Your task to perform on an android device: Go to Amazon Image 0: 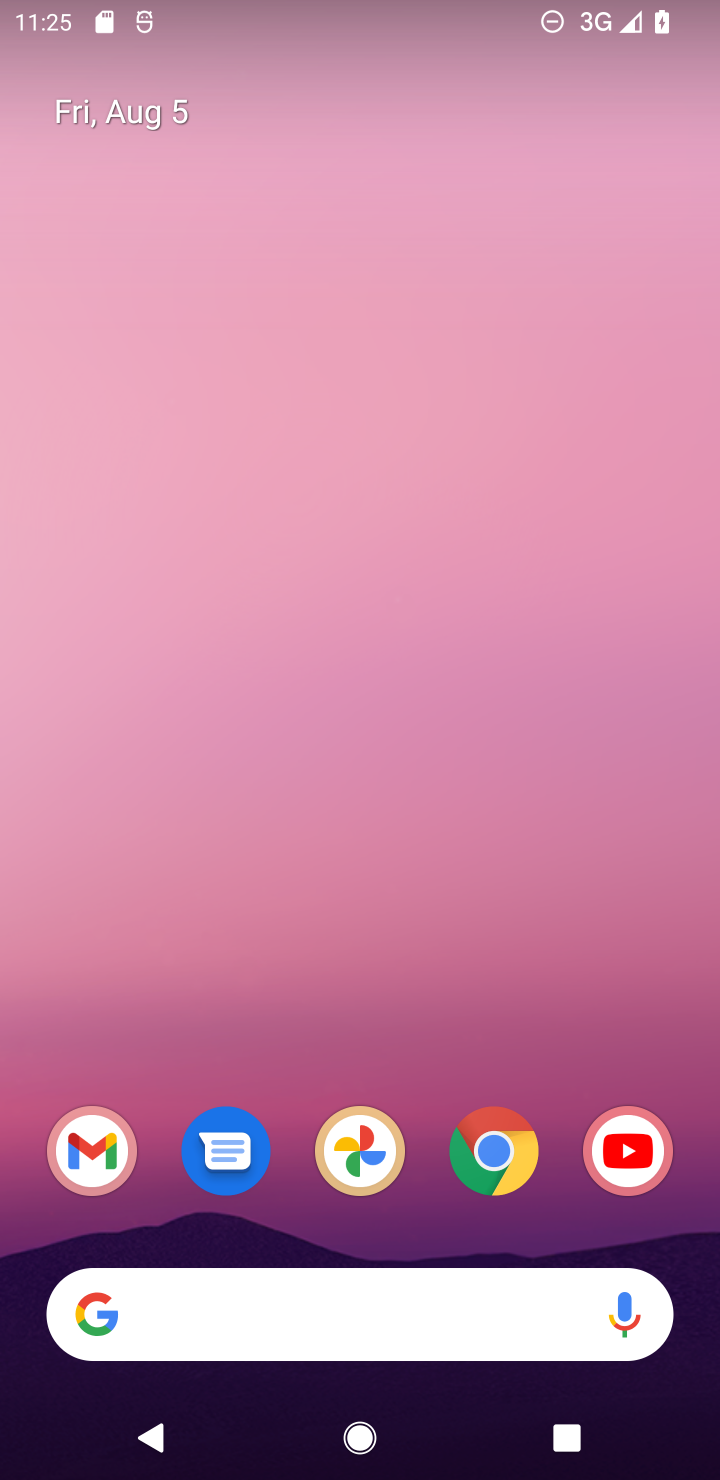
Step 0: click (478, 1184)
Your task to perform on an android device: Go to Amazon Image 1: 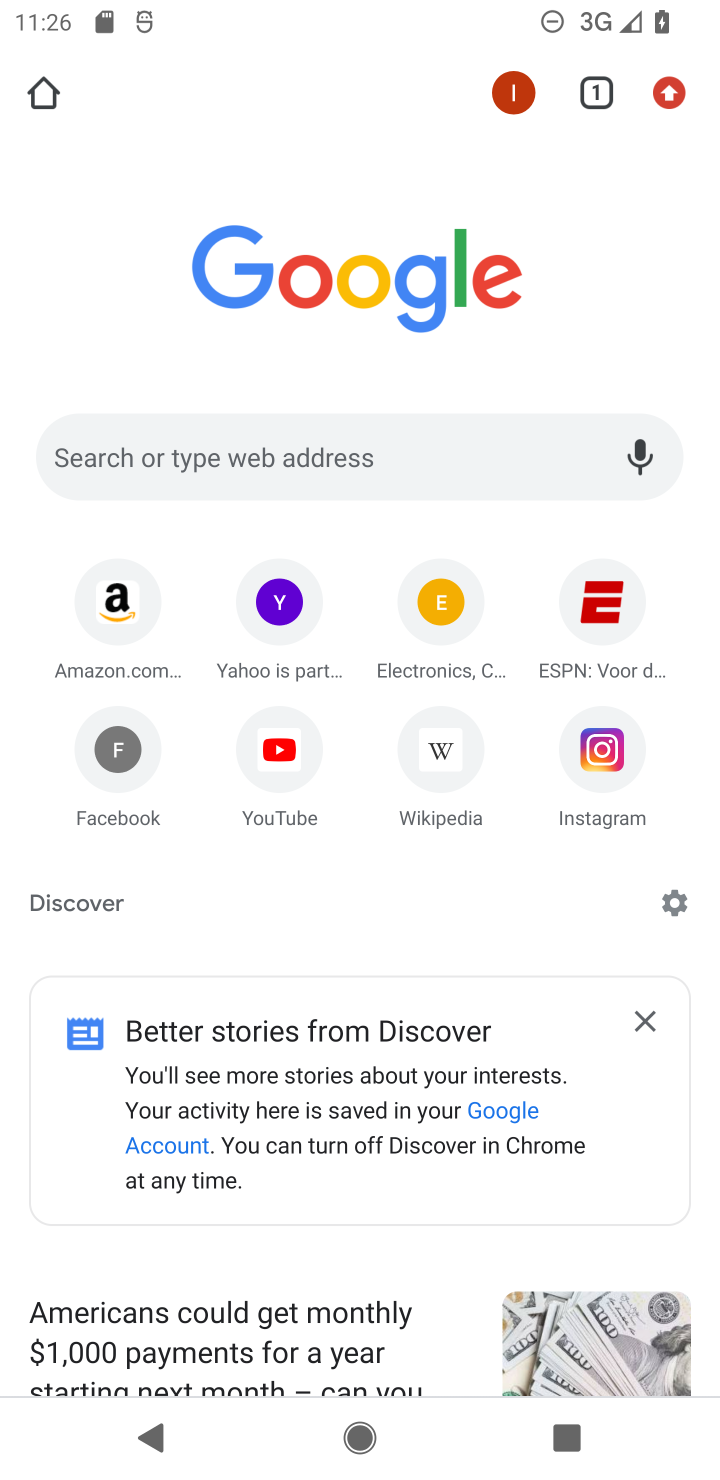
Step 1: click (92, 623)
Your task to perform on an android device: Go to Amazon Image 2: 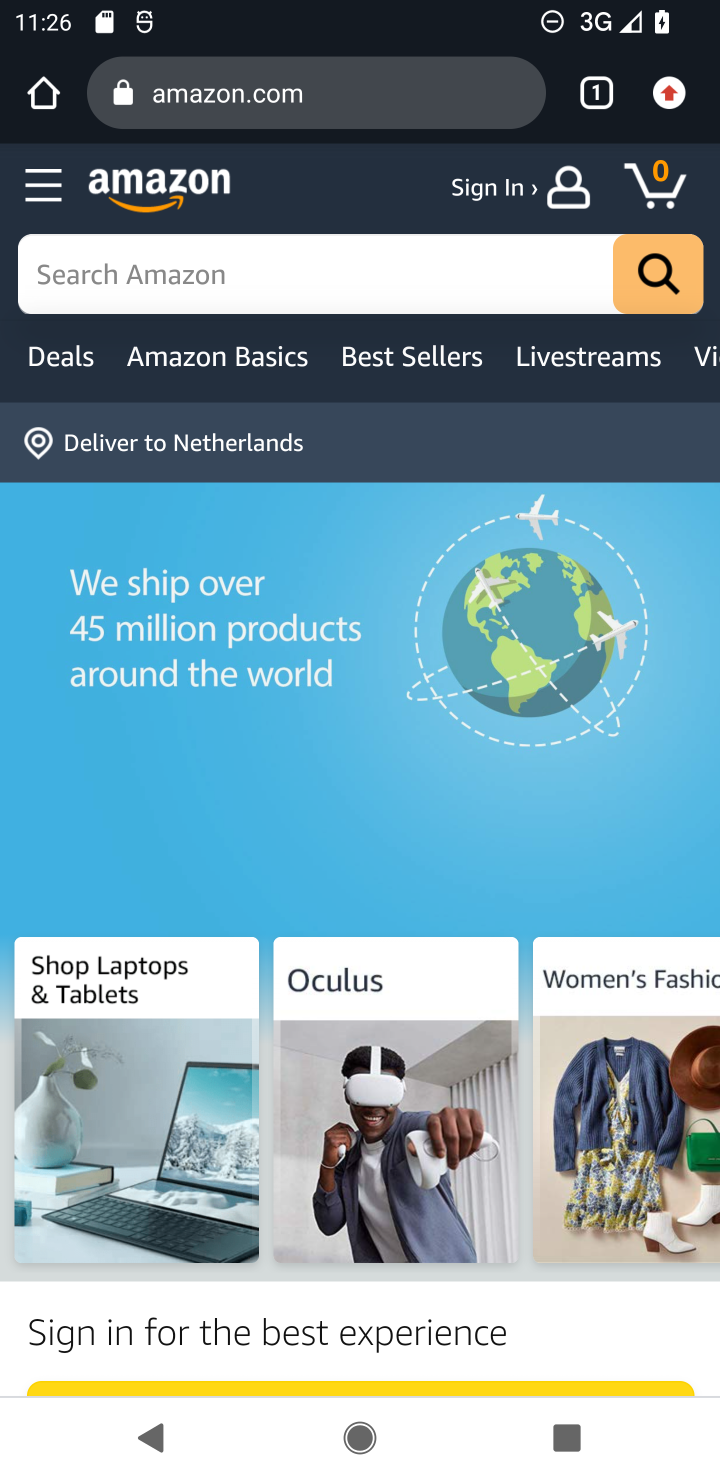
Step 2: task complete